Your task to perform on an android device: Open the phone app and click the voicemail tab. Image 0: 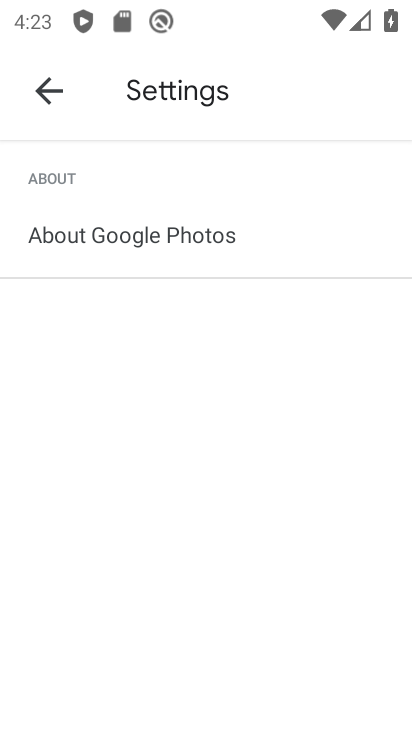
Step 0: press home button
Your task to perform on an android device: Open the phone app and click the voicemail tab. Image 1: 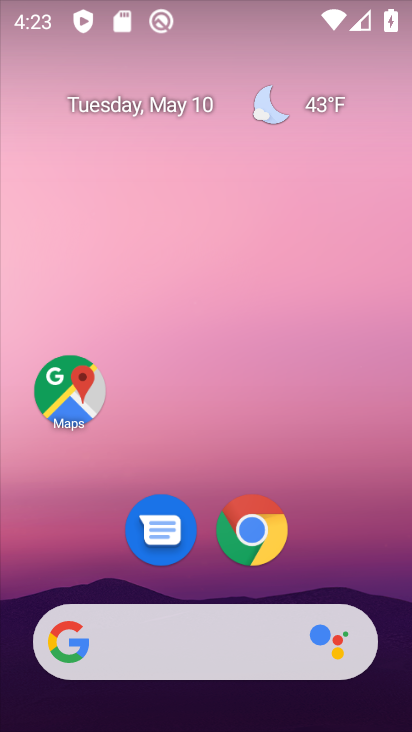
Step 1: drag from (340, 553) to (319, 81)
Your task to perform on an android device: Open the phone app and click the voicemail tab. Image 2: 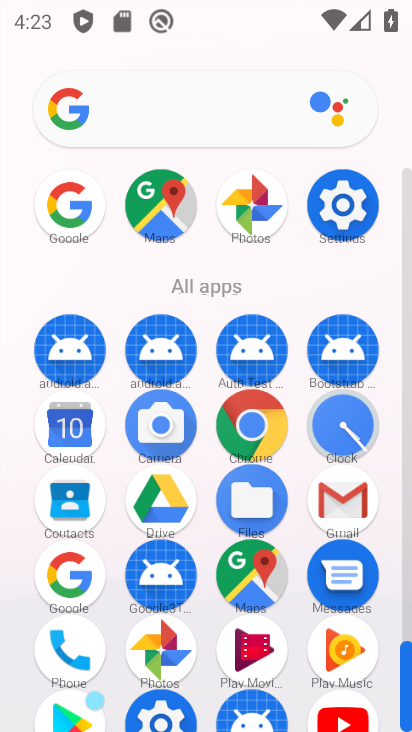
Step 2: drag from (269, 650) to (284, 264)
Your task to perform on an android device: Open the phone app and click the voicemail tab. Image 3: 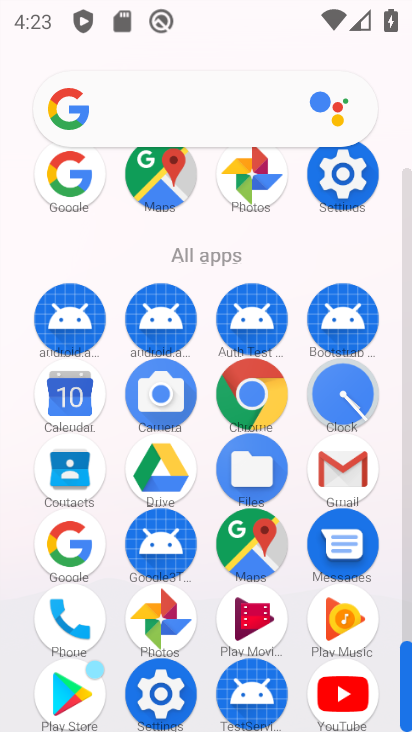
Step 3: click (76, 650)
Your task to perform on an android device: Open the phone app and click the voicemail tab. Image 4: 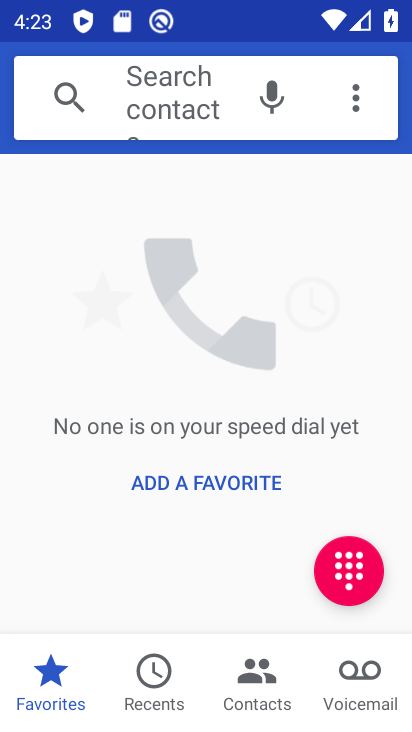
Step 4: click (363, 679)
Your task to perform on an android device: Open the phone app and click the voicemail tab. Image 5: 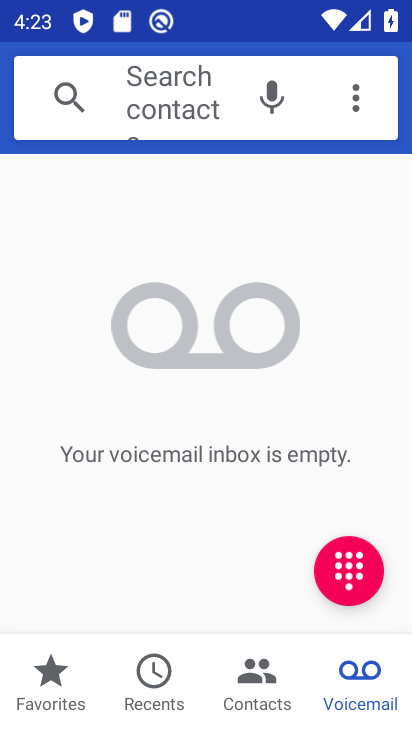
Step 5: task complete